Your task to perform on an android device: What's the price of the Galaxy phone? Image 0: 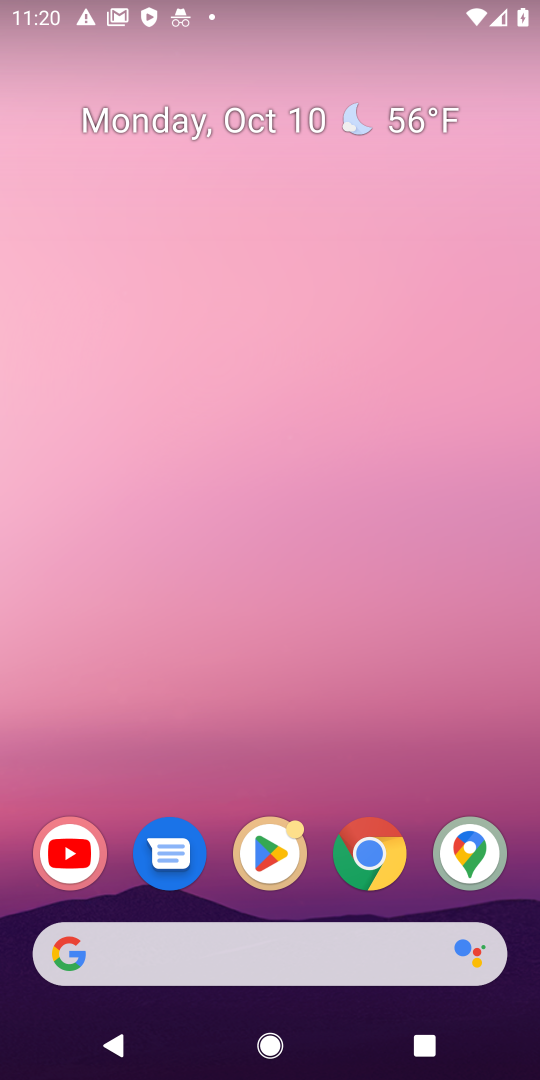
Step 0: press home button
Your task to perform on an android device: What's the price of the Galaxy phone? Image 1: 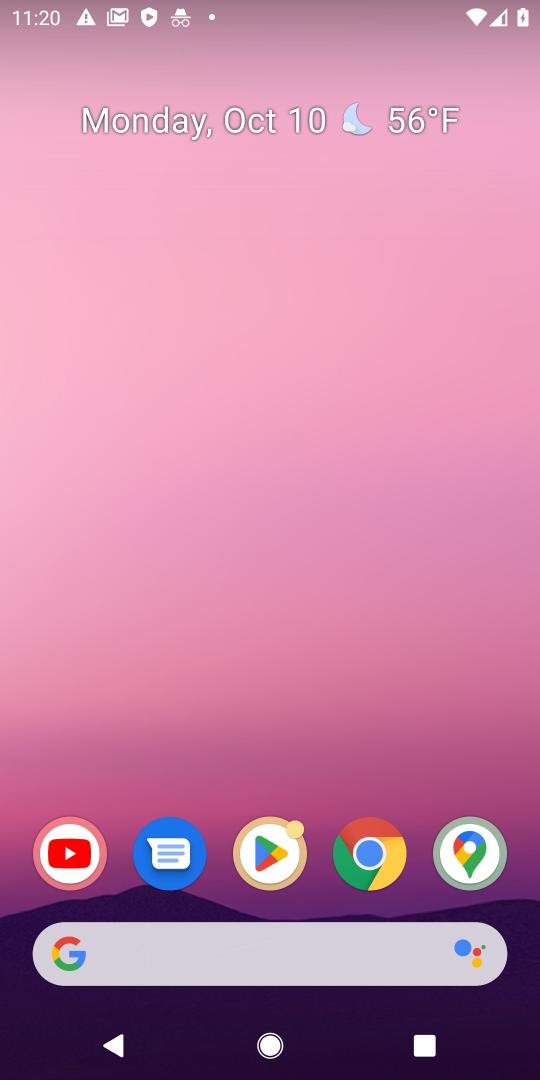
Step 1: click (110, 964)
Your task to perform on an android device: What's the price of the Galaxy phone? Image 2: 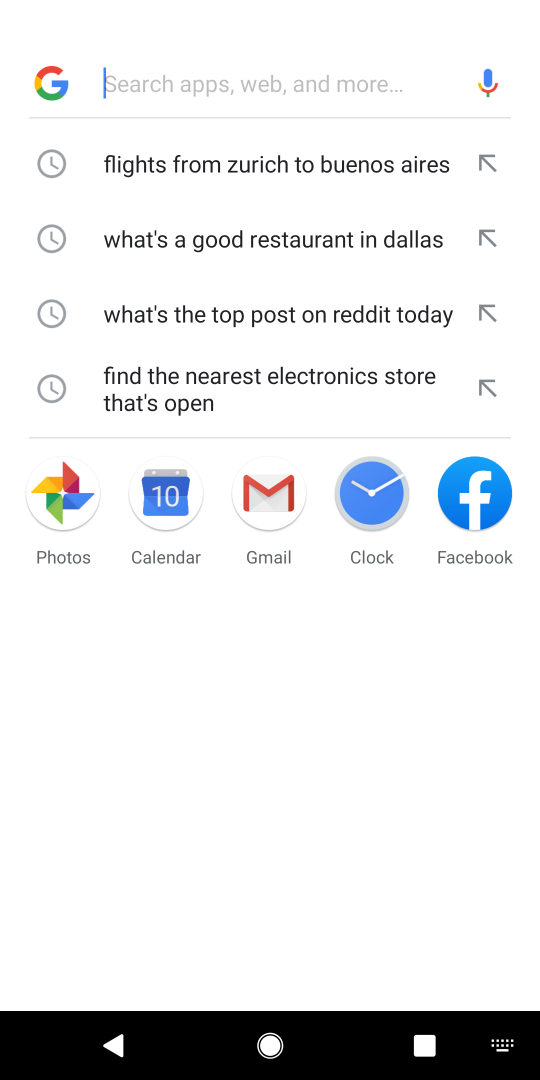
Step 2: type "What's the price of the Galaxy phone"
Your task to perform on an android device: What's the price of the Galaxy phone? Image 3: 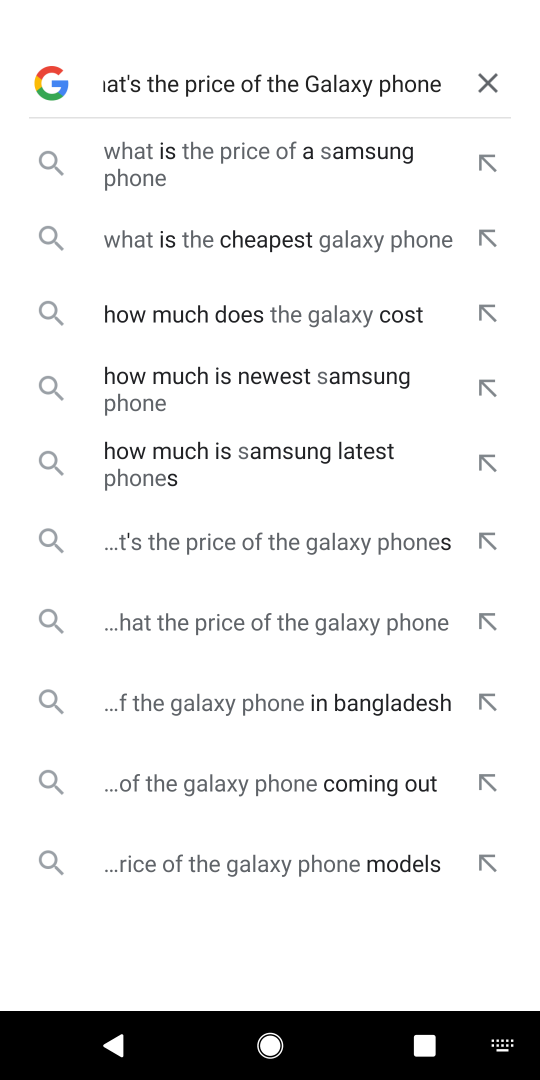
Step 3: press enter
Your task to perform on an android device: What's the price of the Galaxy phone? Image 4: 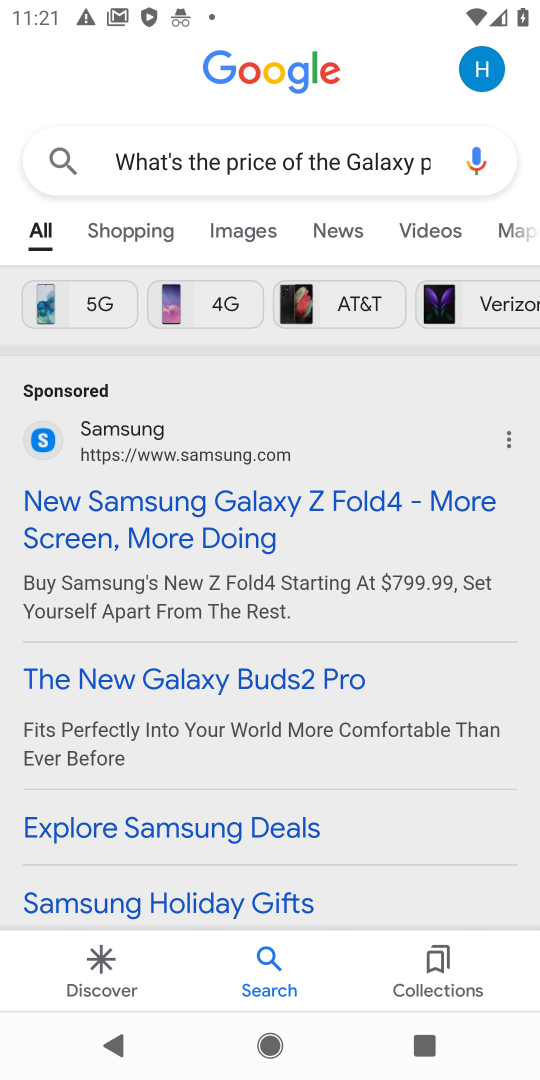
Step 4: drag from (422, 811) to (425, 581)
Your task to perform on an android device: What's the price of the Galaxy phone? Image 5: 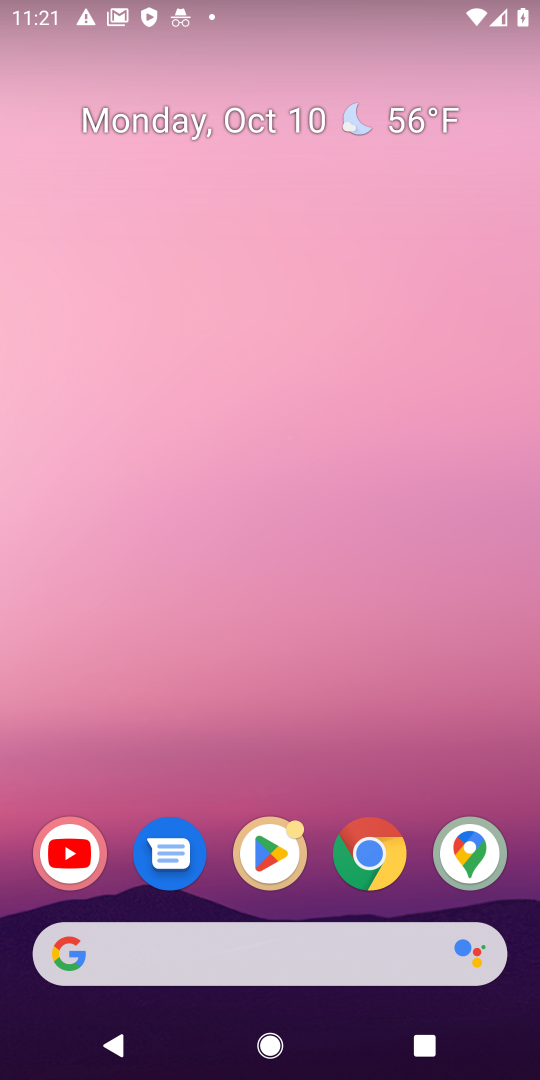
Step 5: click (139, 957)
Your task to perform on an android device: What's the price of the Galaxy phone? Image 6: 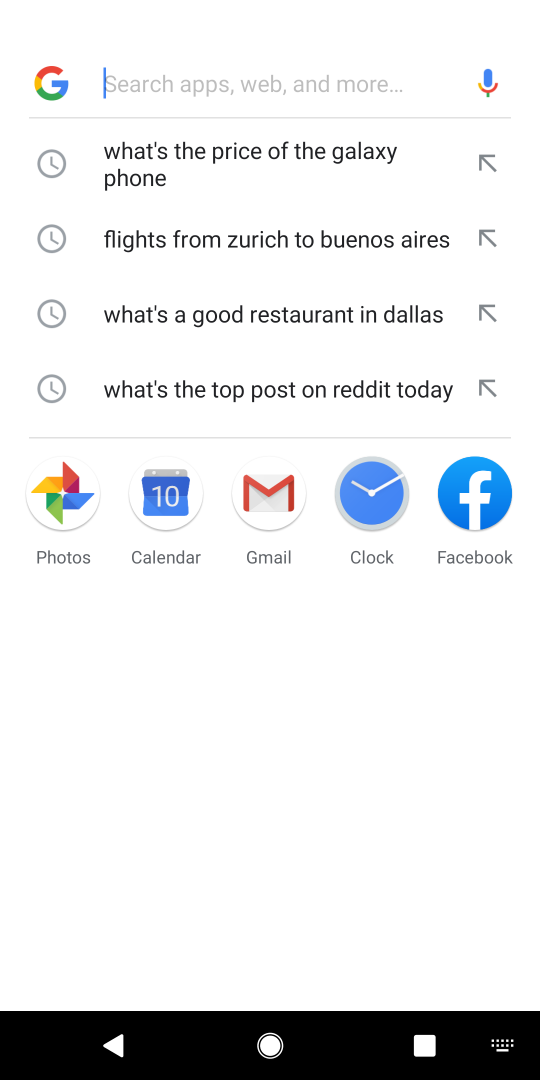
Step 6: click (155, 171)
Your task to perform on an android device: What's the price of the Galaxy phone? Image 7: 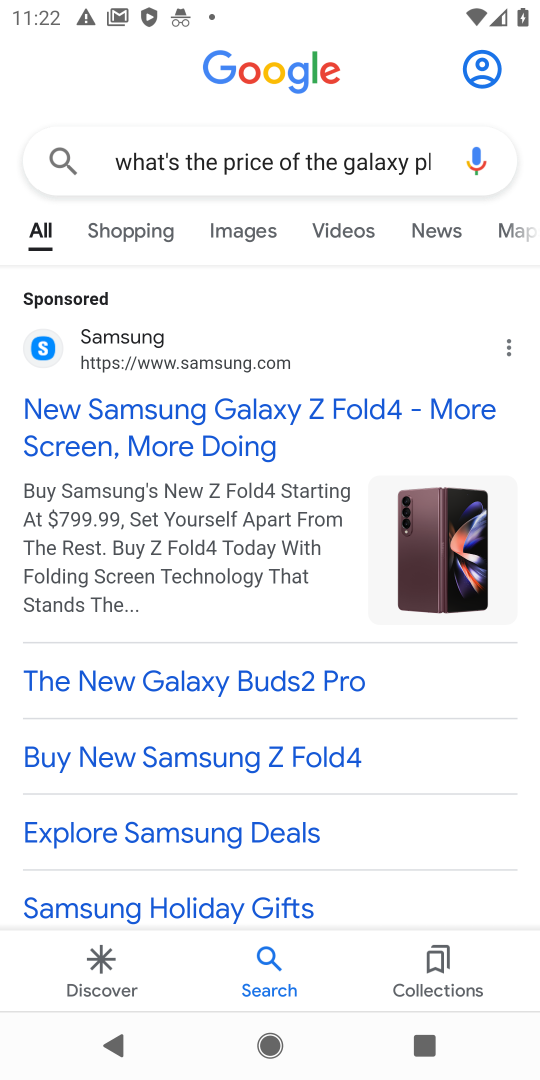
Step 7: drag from (409, 830) to (372, 395)
Your task to perform on an android device: What's the price of the Galaxy phone? Image 8: 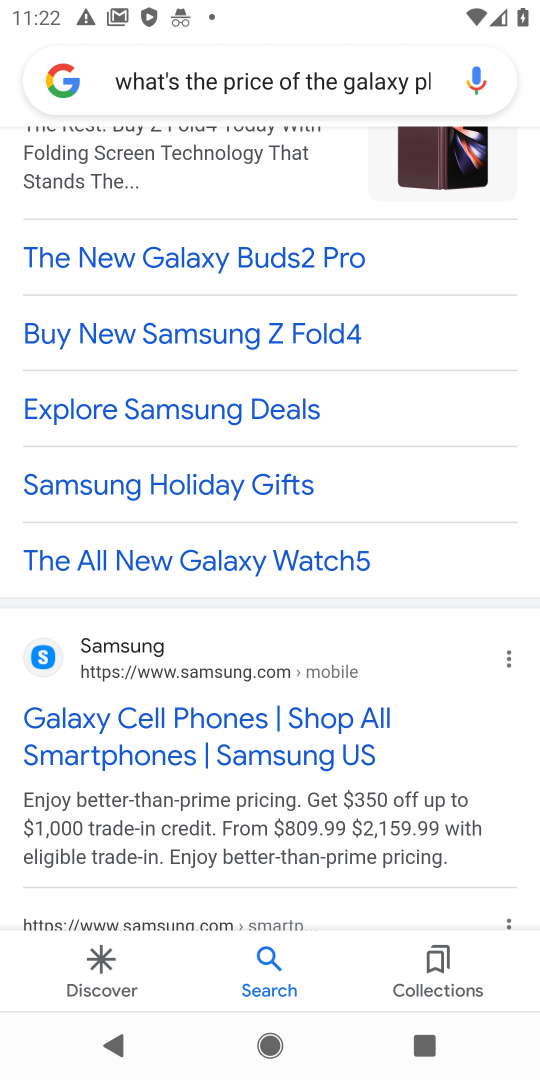
Step 8: click (270, 735)
Your task to perform on an android device: What's the price of the Galaxy phone? Image 9: 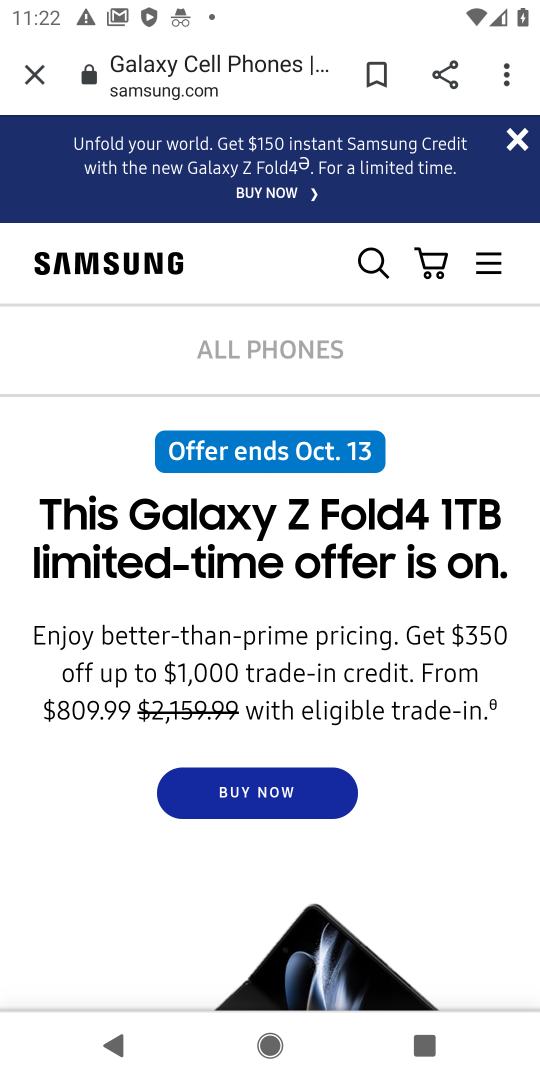
Step 9: task complete